Your task to perform on an android device: clear history in the chrome app Image 0: 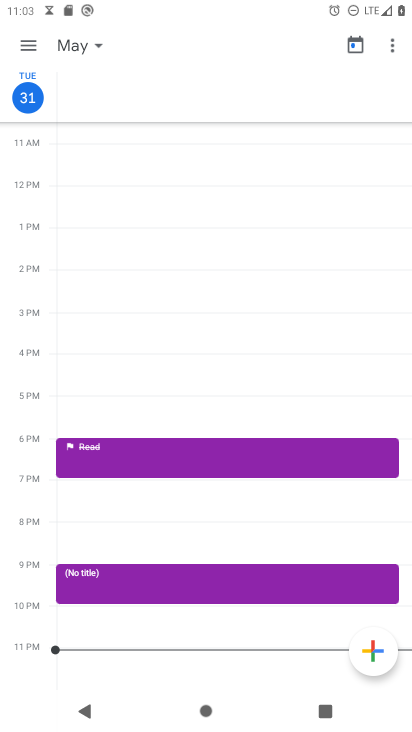
Step 0: press back button
Your task to perform on an android device: clear history in the chrome app Image 1: 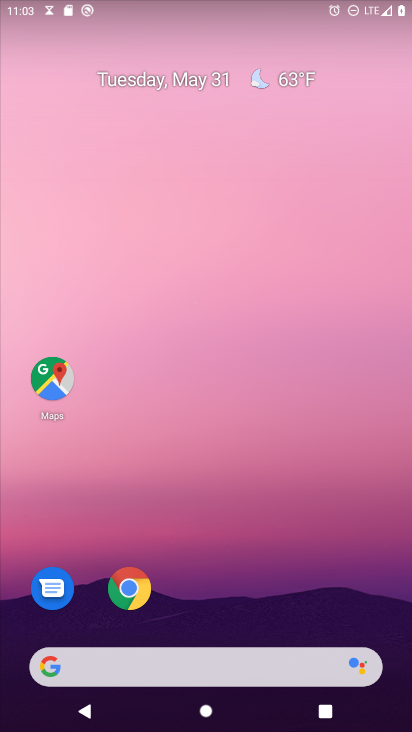
Step 1: click (129, 589)
Your task to perform on an android device: clear history in the chrome app Image 2: 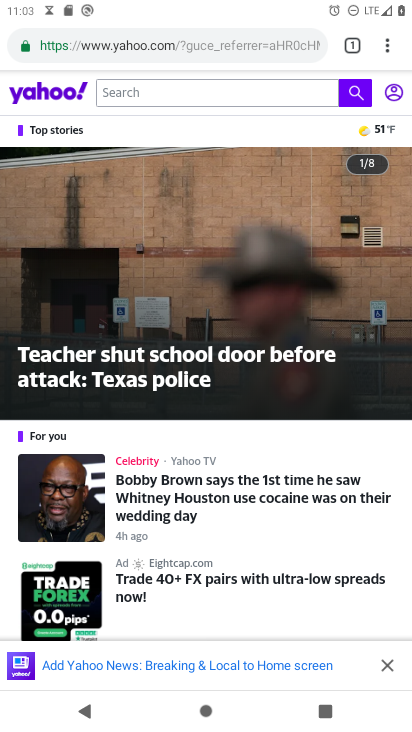
Step 2: click (385, 42)
Your task to perform on an android device: clear history in the chrome app Image 3: 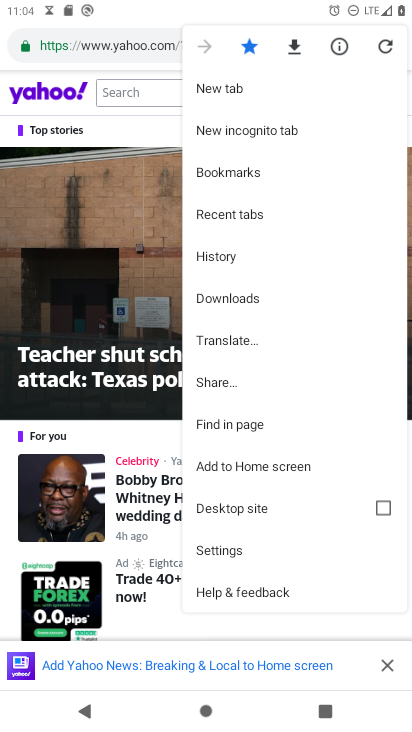
Step 3: click (238, 260)
Your task to perform on an android device: clear history in the chrome app Image 4: 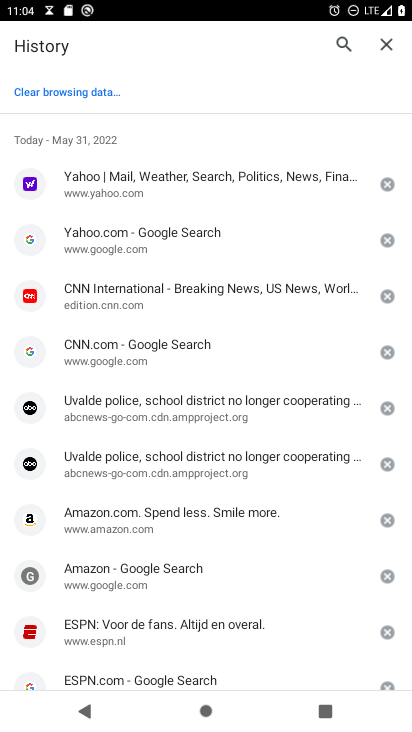
Step 4: click (95, 94)
Your task to perform on an android device: clear history in the chrome app Image 5: 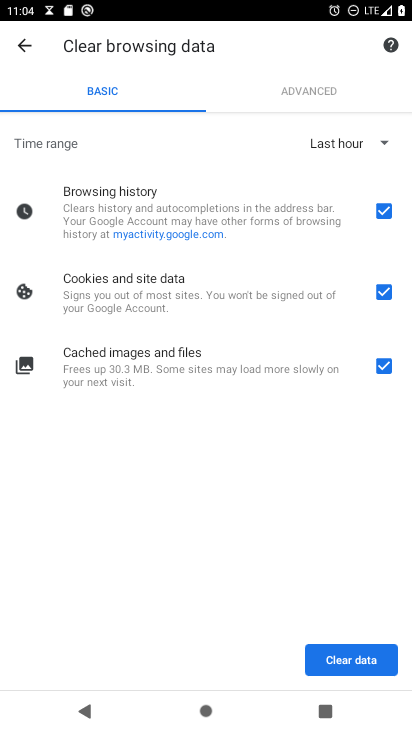
Step 5: click (377, 664)
Your task to perform on an android device: clear history in the chrome app Image 6: 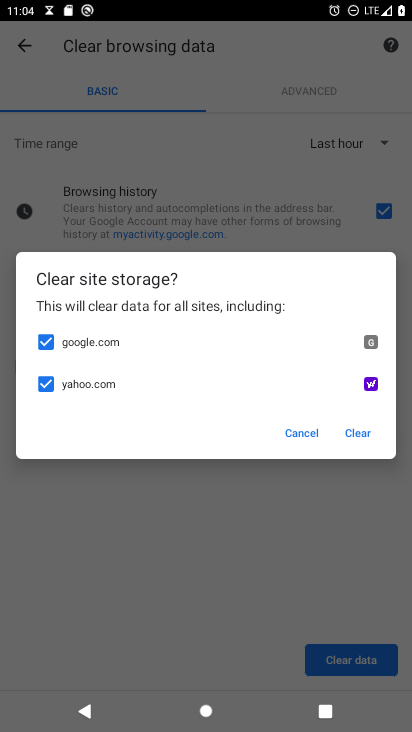
Step 6: click (367, 434)
Your task to perform on an android device: clear history in the chrome app Image 7: 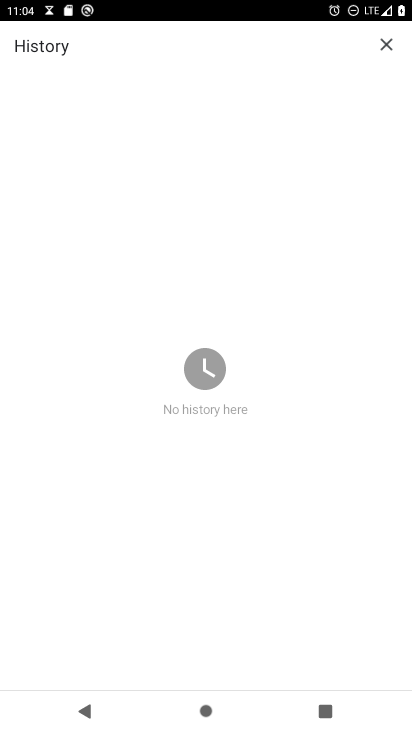
Step 7: task complete